Your task to perform on an android device: What's the weather going to be this weekend? Image 0: 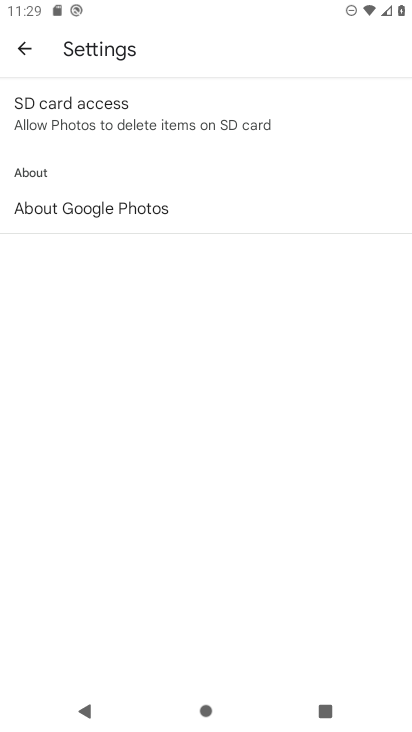
Step 0: press home button
Your task to perform on an android device: What's the weather going to be this weekend? Image 1: 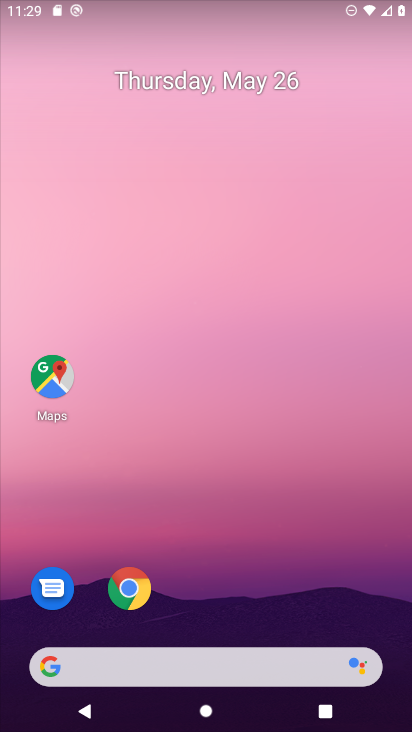
Step 1: click (238, 669)
Your task to perform on an android device: What's the weather going to be this weekend? Image 2: 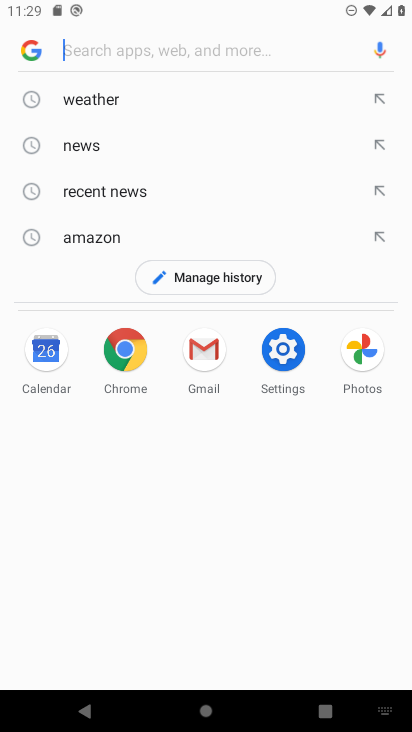
Step 2: click (87, 94)
Your task to perform on an android device: What's the weather going to be this weekend? Image 3: 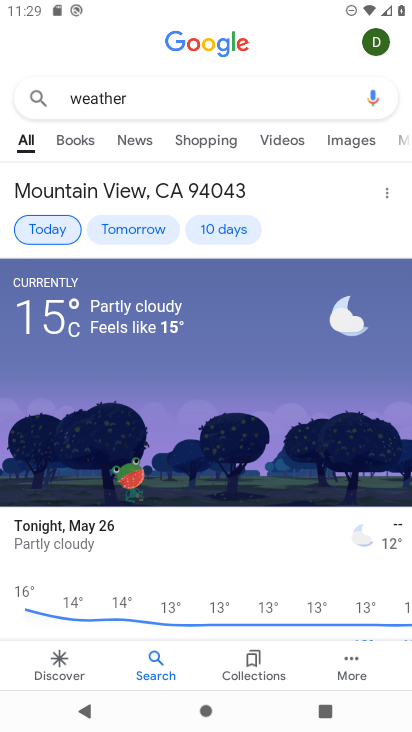
Step 3: drag from (348, 590) to (292, 288)
Your task to perform on an android device: What's the weather going to be this weekend? Image 4: 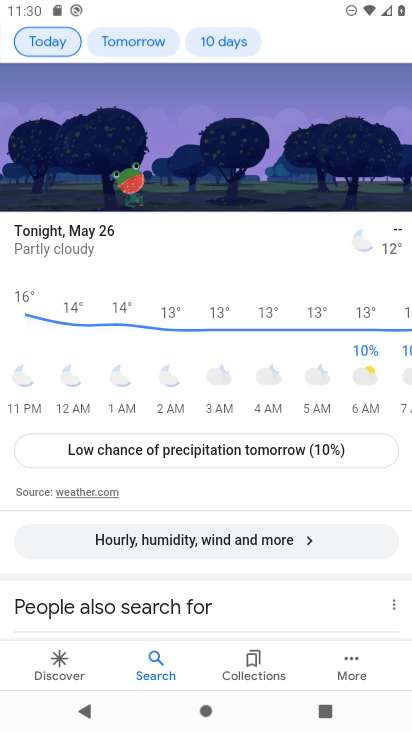
Step 4: drag from (167, 97) to (182, 357)
Your task to perform on an android device: What's the weather going to be this weekend? Image 5: 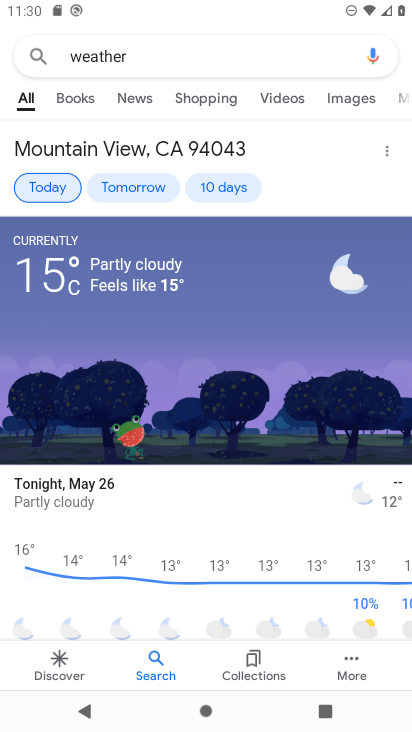
Step 5: click (229, 178)
Your task to perform on an android device: What's the weather going to be this weekend? Image 6: 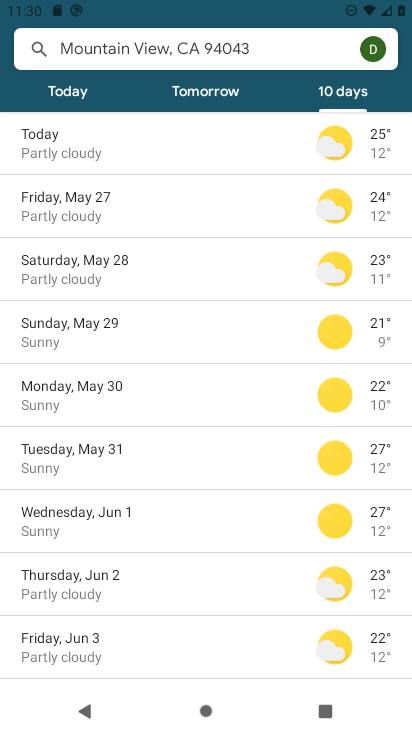
Step 6: task complete